Your task to perform on an android device: Clear all items from cart on target.com. Image 0: 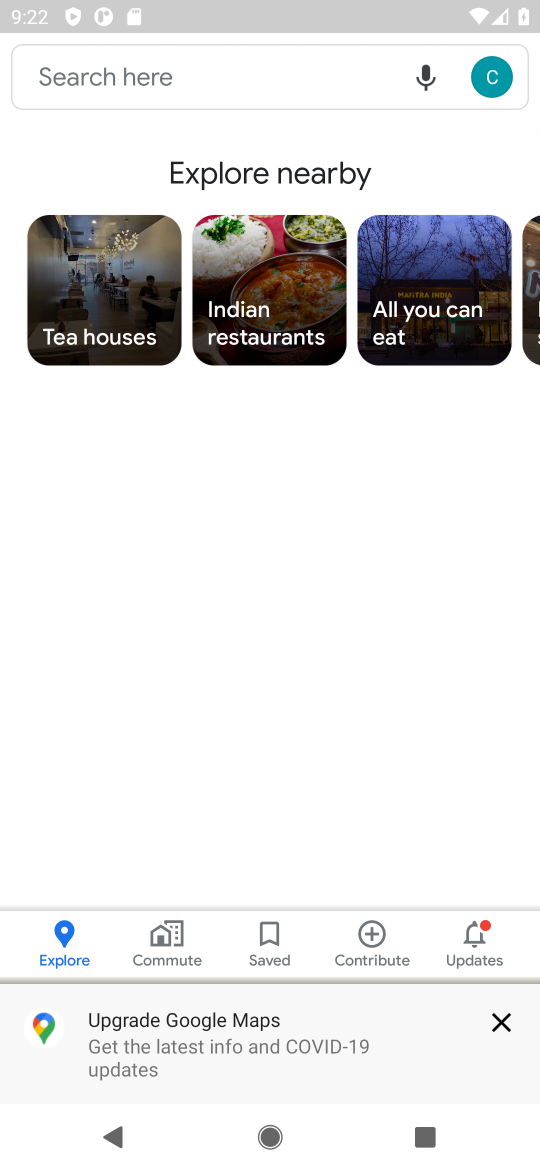
Step 0: press home button
Your task to perform on an android device: Clear all items from cart on target.com. Image 1: 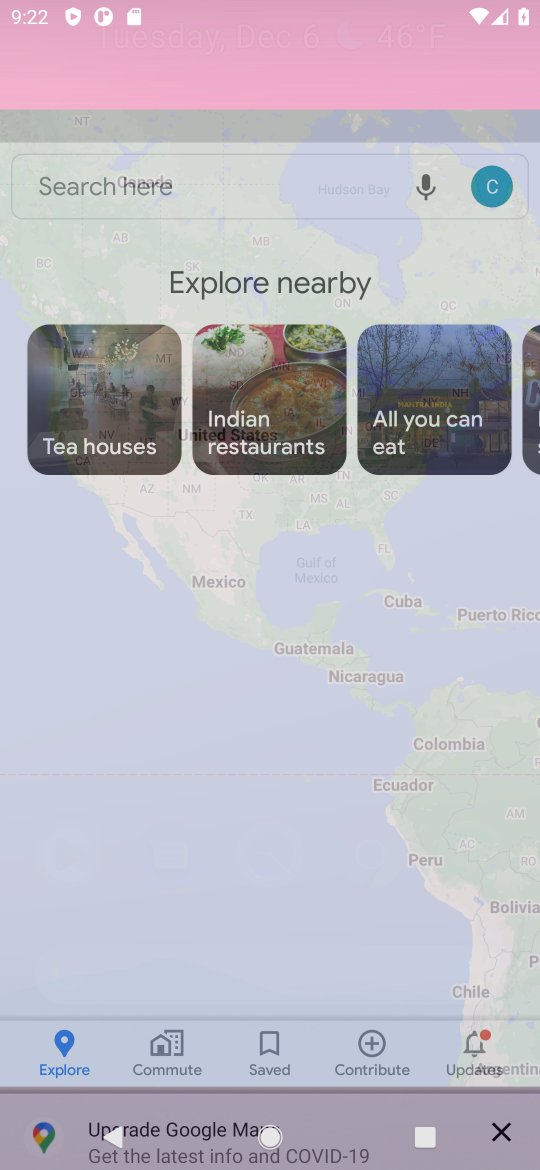
Step 1: press home button
Your task to perform on an android device: Clear all items from cart on target.com. Image 2: 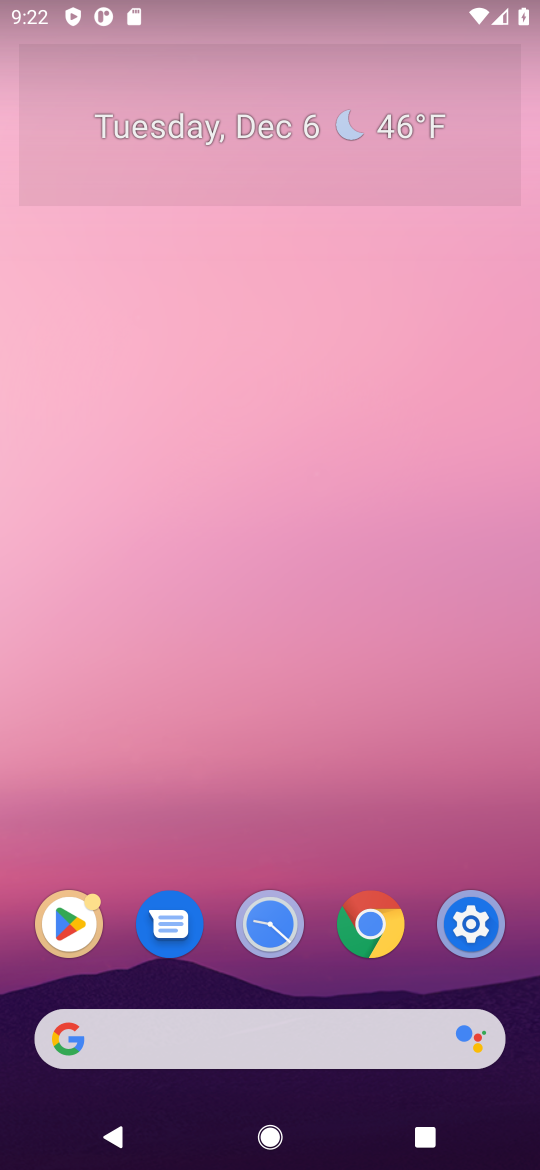
Step 2: click (267, 1047)
Your task to perform on an android device: Clear all items from cart on target.com. Image 3: 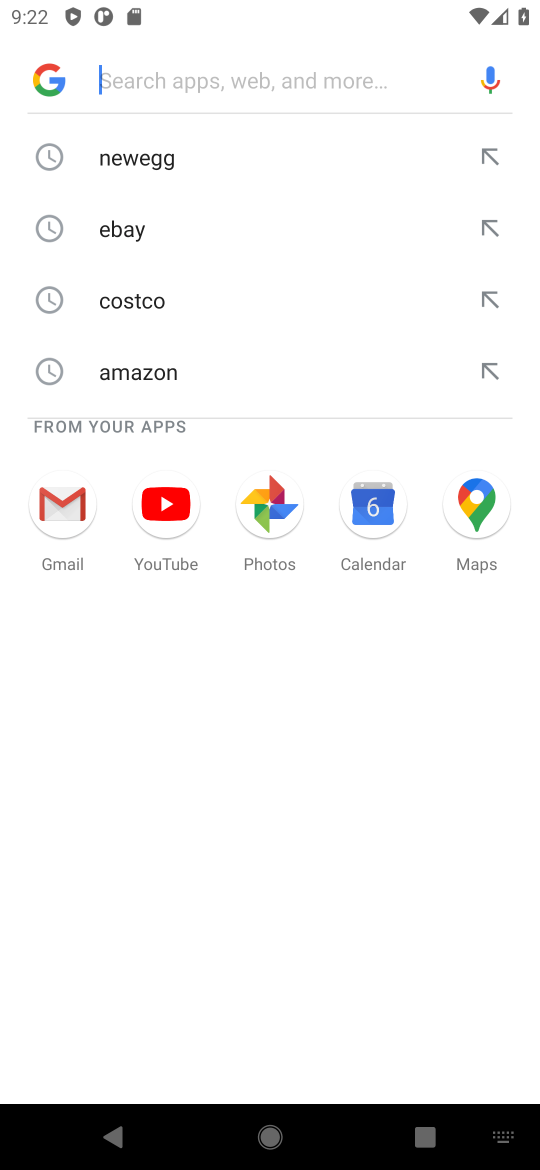
Step 3: type "target "
Your task to perform on an android device: Clear all items from cart on target.com. Image 4: 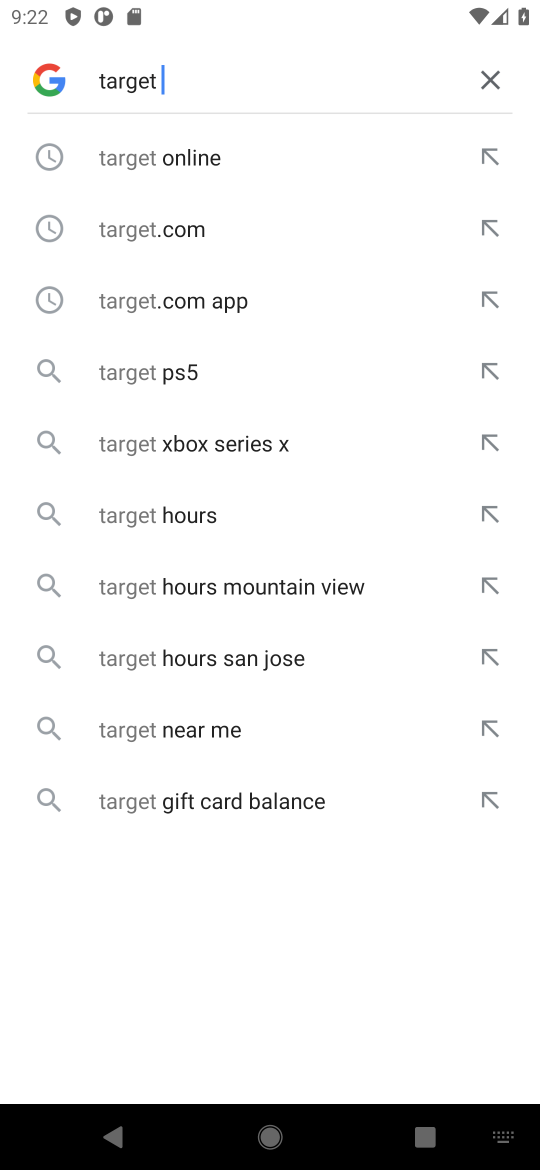
Step 4: click (164, 178)
Your task to perform on an android device: Clear all items from cart on target.com. Image 5: 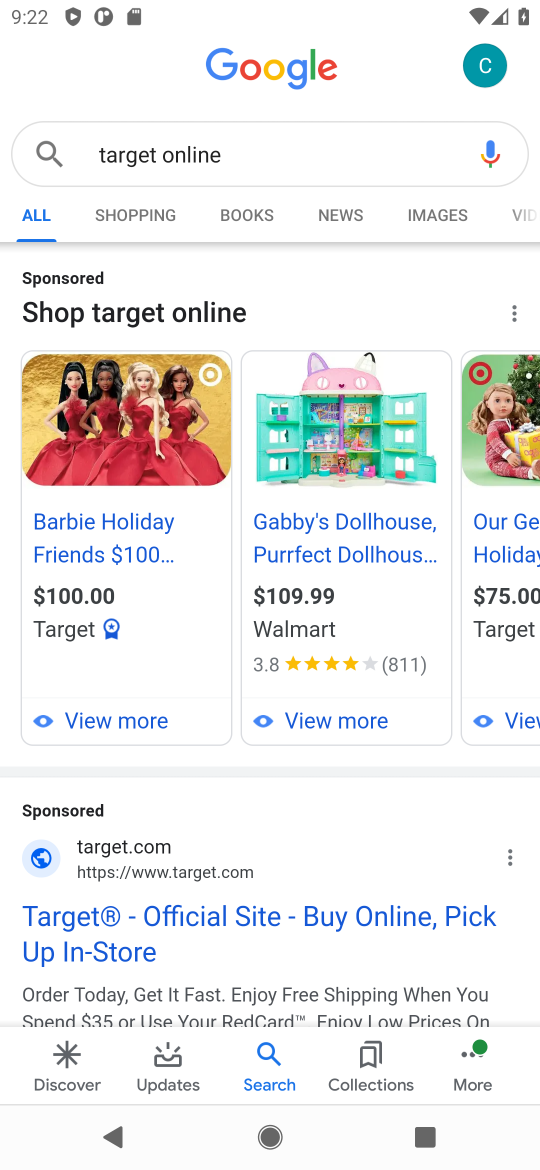
Step 5: click (169, 908)
Your task to perform on an android device: Clear all items from cart on target.com. Image 6: 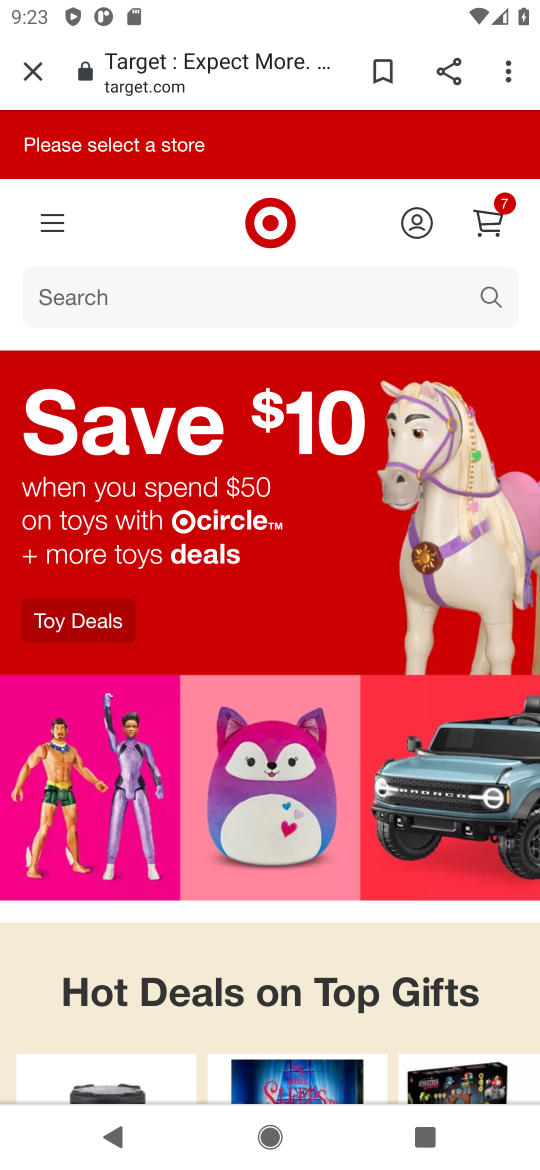
Step 6: task complete